Your task to perform on an android device: Open settings on Google Maps Image 0: 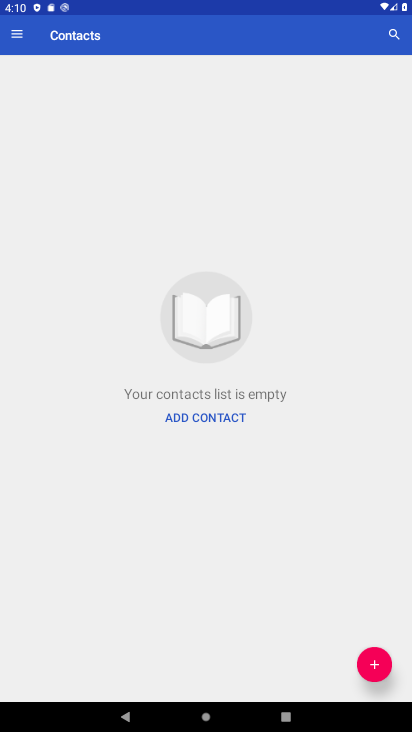
Step 0: press home button
Your task to perform on an android device: Open settings on Google Maps Image 1: 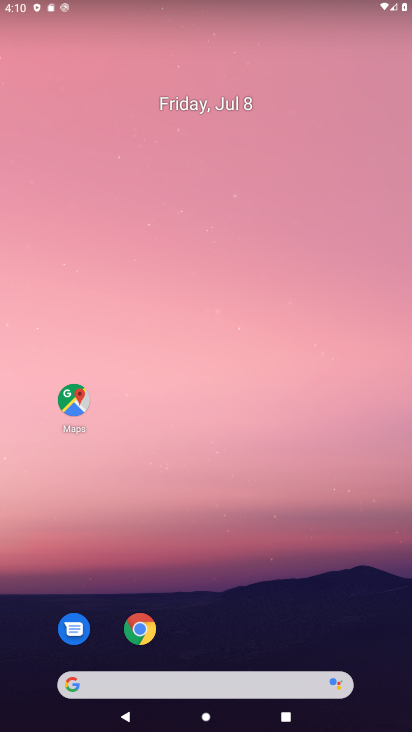
Step 1: drag from (230, 710) to (232, 181)
Your task to perform on an android device: Open settings on Google Maps Image 2: 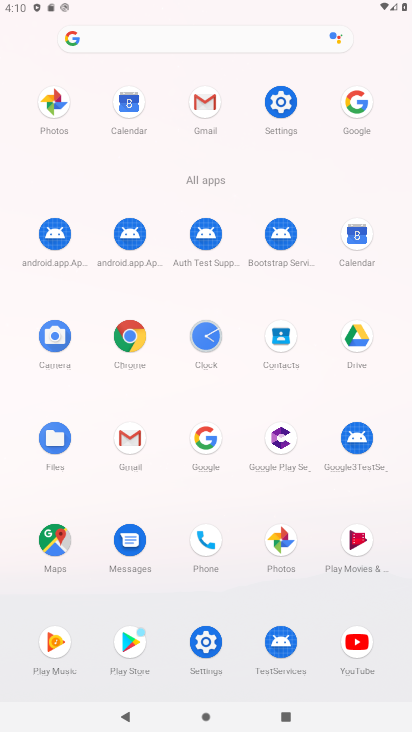
Step 2: click (52, 538)
Your task to perform on an android device: Open settings on Google Maps Image 3: 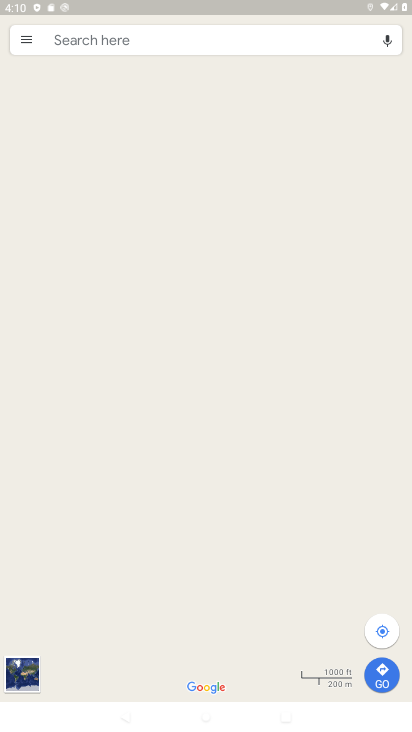
Step 3: click (27, 40)
Your task to perform on an android device: Open settings on Google Maps Image 4: 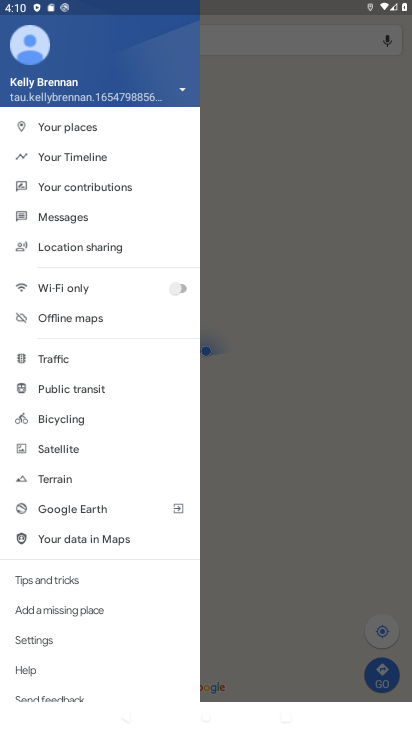
Step 4: click (35, 637)
Your task to perform on an android device: Open settings on Google Maps Image 5: 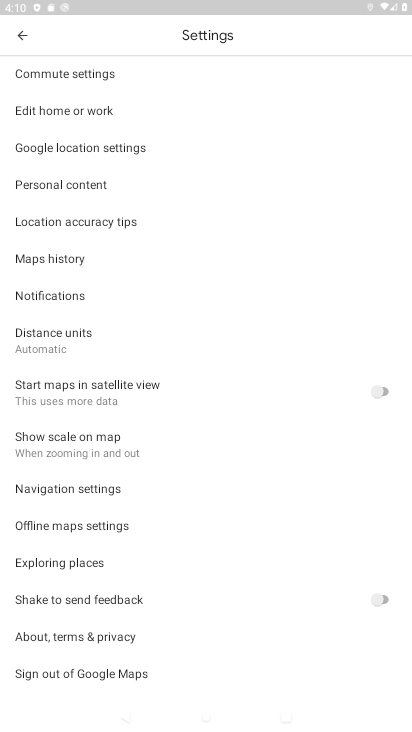
Step 5: task complete